Your task to perform on an android device: change the clock display to analog Image 0: 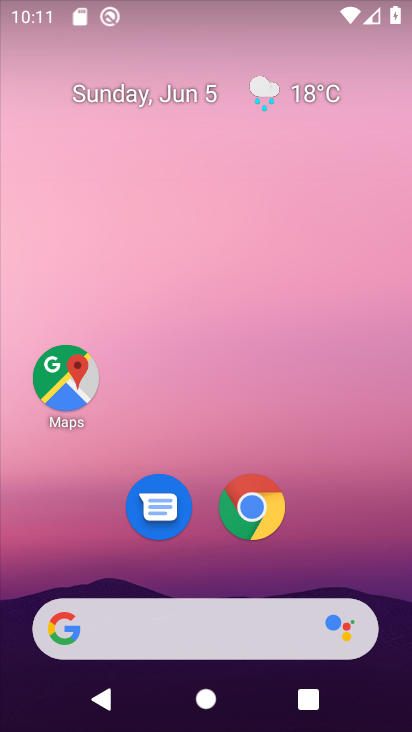
Step 0: drag from (199, 541) to (227, 5)
Your task to perform on an android device: change the clock display to analog Image 1: 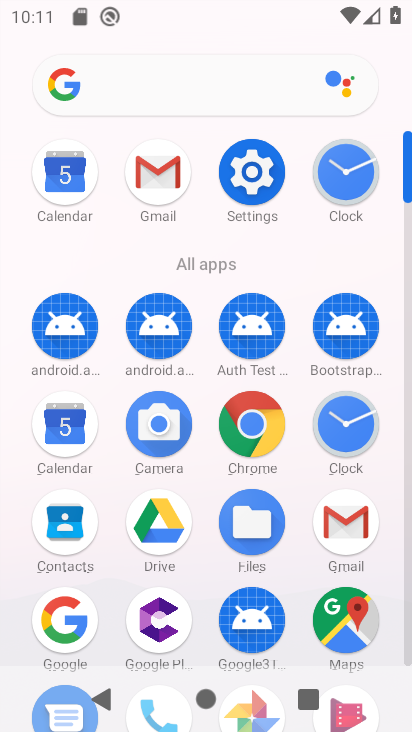
Step 1: click (373, 417)
Your task to perform on an android device: change the clock display to analog Image 2: 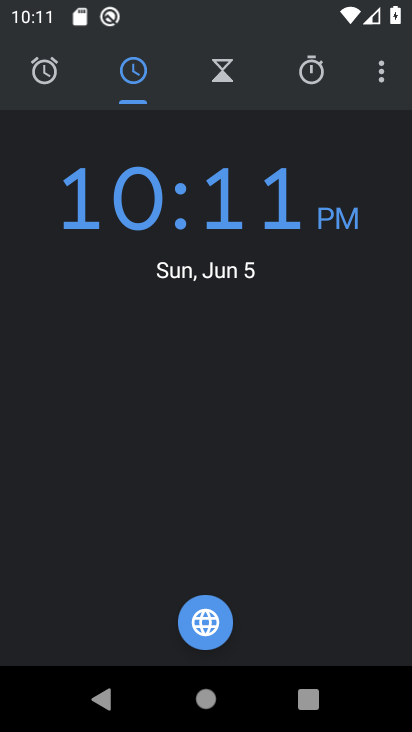
Step 2: click (384, 82)
Your task to perform on an android device: change the clock display to analog Image 3: 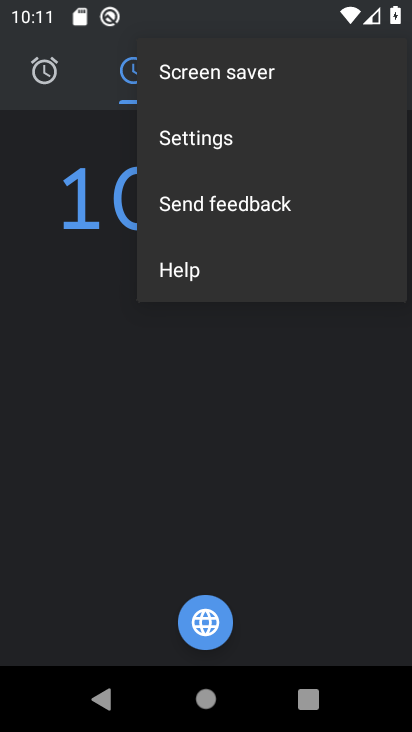
Step 3: click (223, 146)
Your task to perform on an android device: change the clock display to analog Image 4: 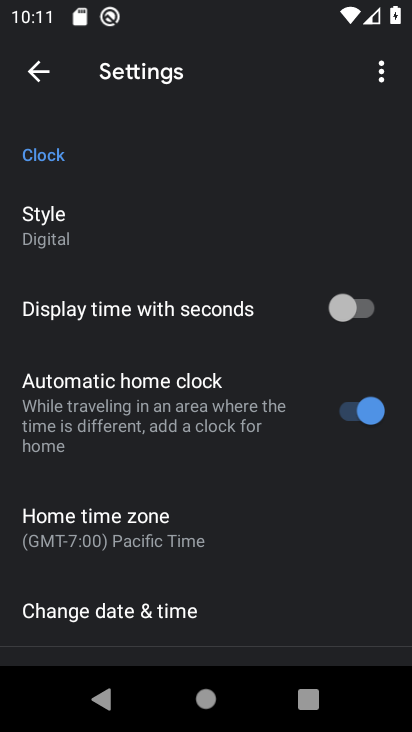
Step 4: drag from (196, 480) to (222, 199)
Your task to perform on an android device: change the clock display to analog Image 5: 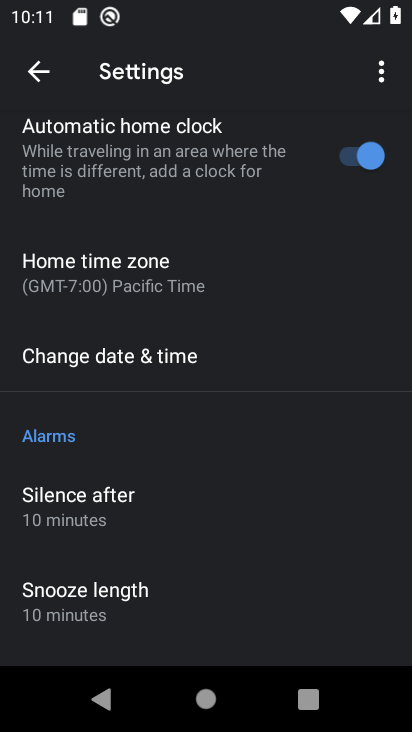
Step 5: drag from (179, 295) to (162, 608)
Your task to perform on an android device: change the clock display to analog Image 6: 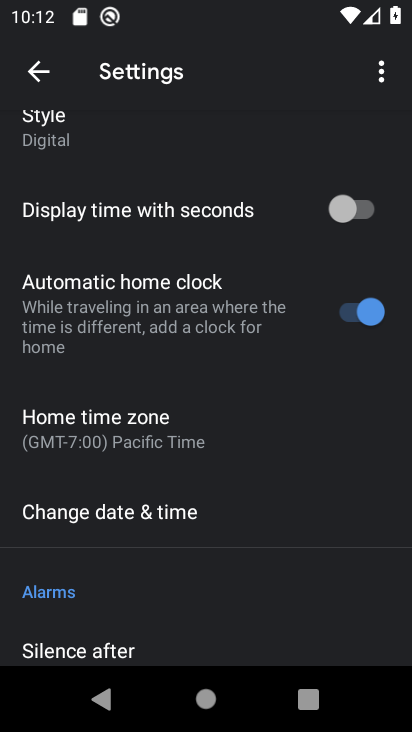
Step 6: click (57, 125)
Your task to perform on an android device: change the clock display to analog Image 7: 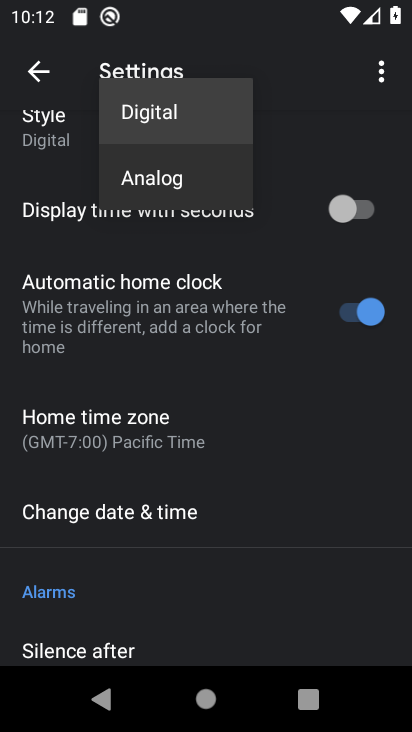
Step 7: click (173, 179)
Your task to perform on an android device: change the clock display to analog Image 8: 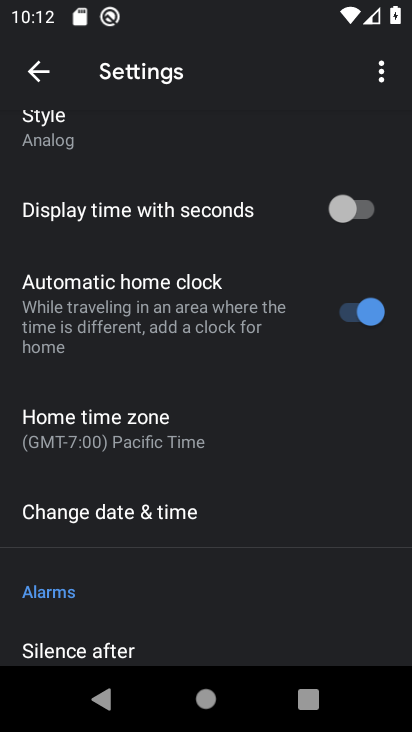
Step 8: task complete